Your task to perform on an android device: turn off wifi Image 0: 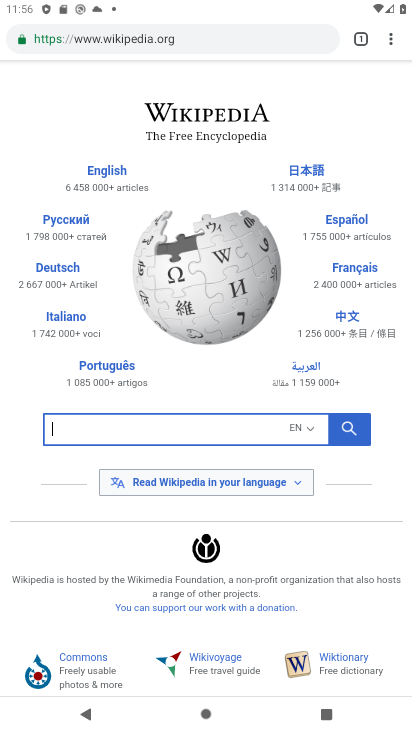
Step 0: press home button
Your task to perform on an android device: turn off wifi Image 1: 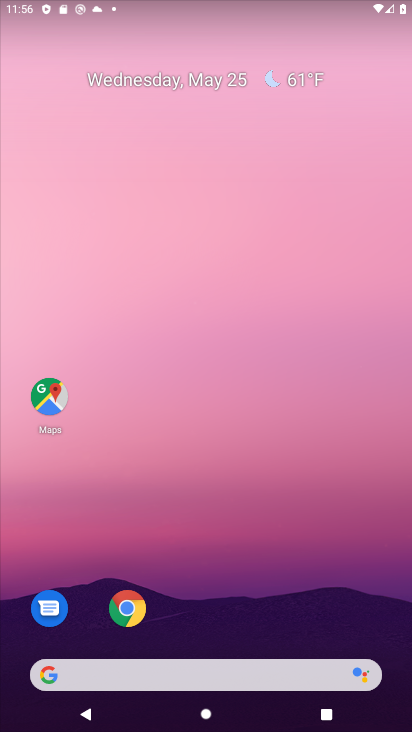
Step 1: drag from (383, 612) to (367, 15)
Your task to perform on an android device: turn off wifi Image 2: 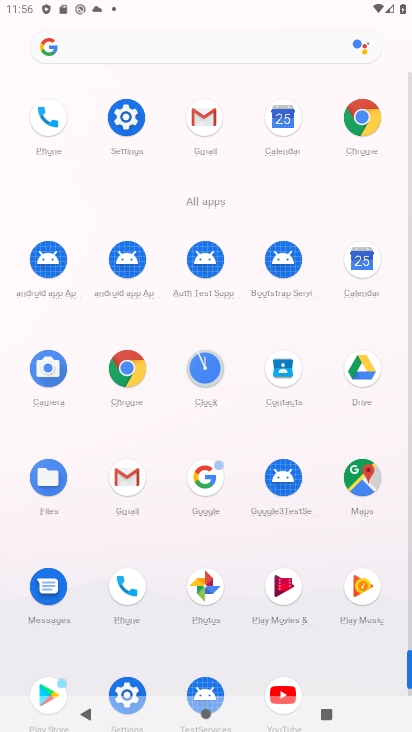
Step 2: click (123, 689)
Your task to perform on an android device: turn off wifi Image 3: 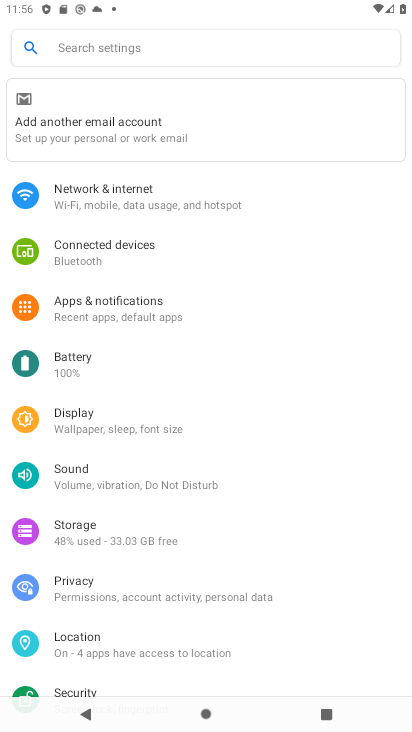
Step 3: click (97, 180)
Your task to perform on an android device: turn off wifi Image 4: 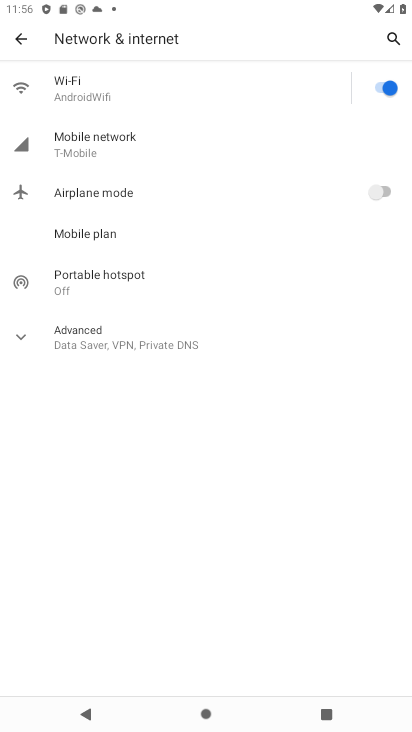
Step 4: click (380, 86)
Your task to perform on an android device: turn off wifi Image 5: 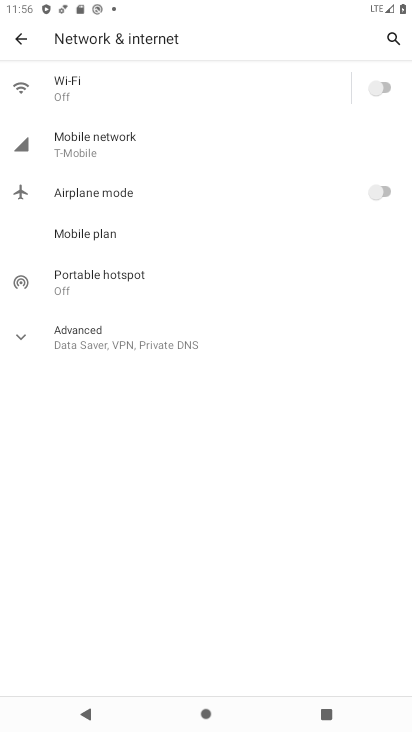
Step 5: task complete